Your task to perform on an android device: uninstall "AliExpress" Image 0: 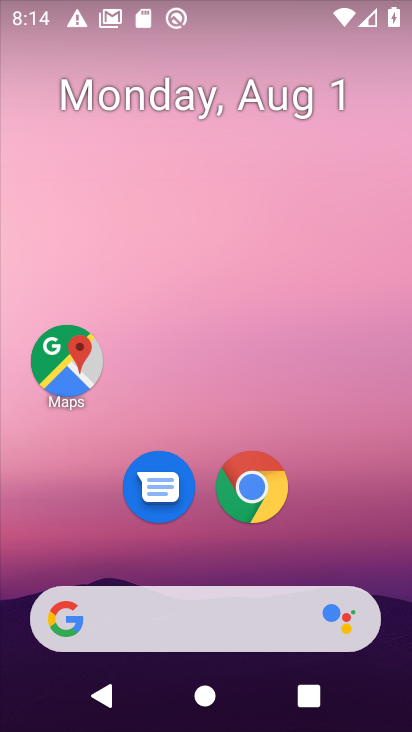
Step 0: press home button
Your task to perform on an android device: uninstall "AliExpress" Image 1: 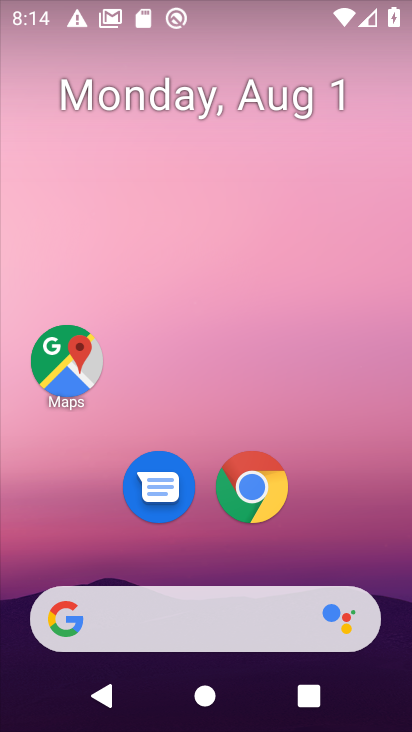
Step 1: drag from (369, 546) to (343, 95)
Your task to perform on an android device: uninstall "AliExpress" Image 2: 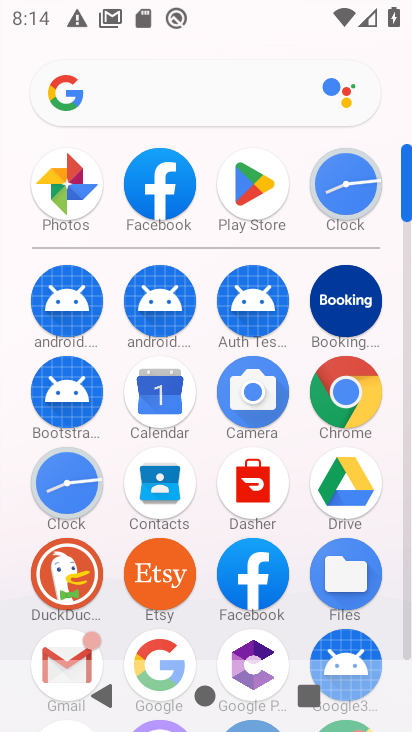
Step 2: click (253, 182)
Your task to perform on an android device: uninstall "AliExpress" Image 3: 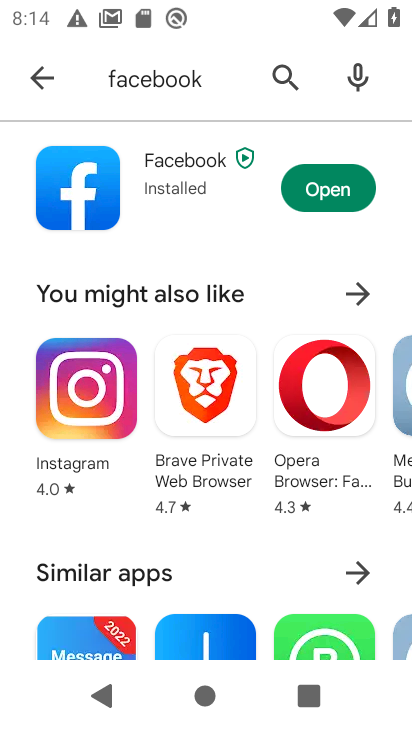
Step 3: click (282, 78)
Your task to perform on an android device: uninstall "AliExpress" Image 4: 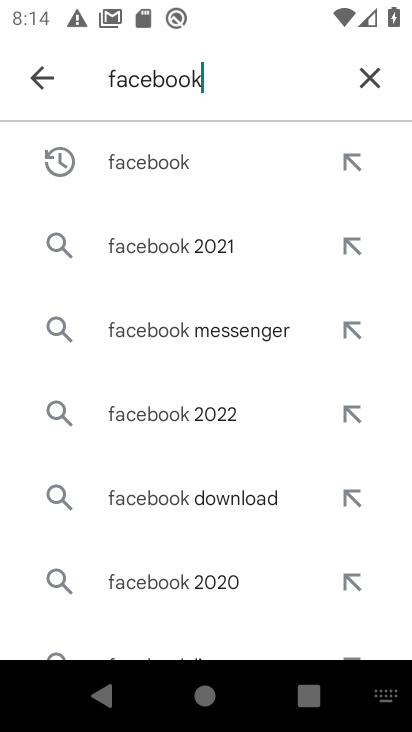
Step 4: click (371, 77)
Your task to perform on an android device: uninstall "AliExpress" Image 5: 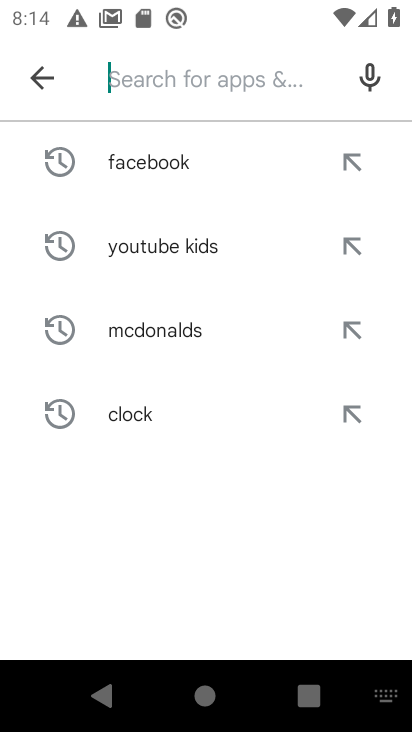
Step 5: type "aliexpress"
Your task to perform on an android device: uninstall "AliExpress" Image 6: 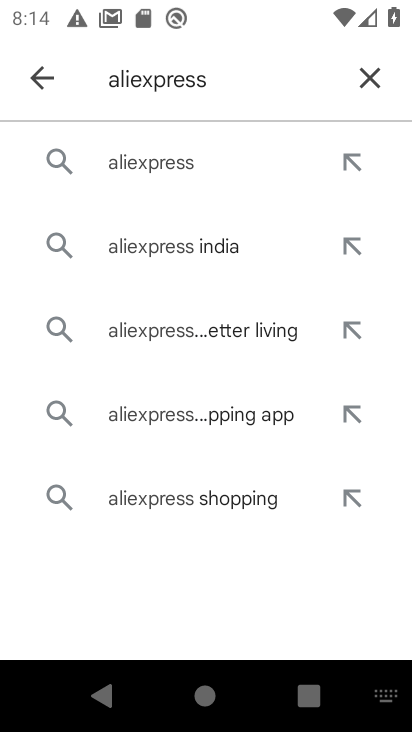
Step 6: click (210, 156)
Your task to perform on an android device: uninstall "AliExpress" Image 7: 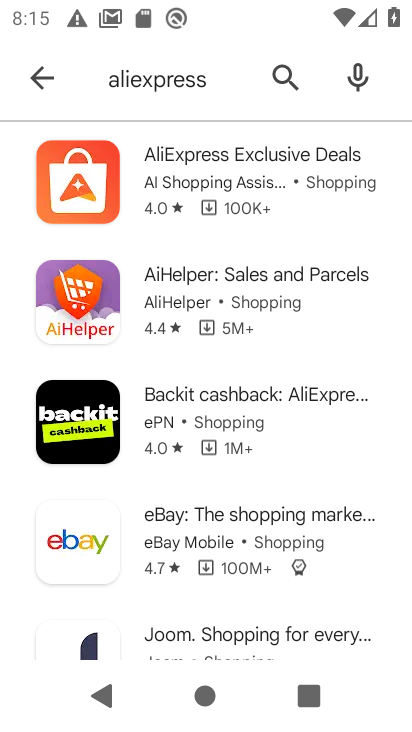
Step 7: task complete